Your task to perform on an android device: change the clock style Image 0: 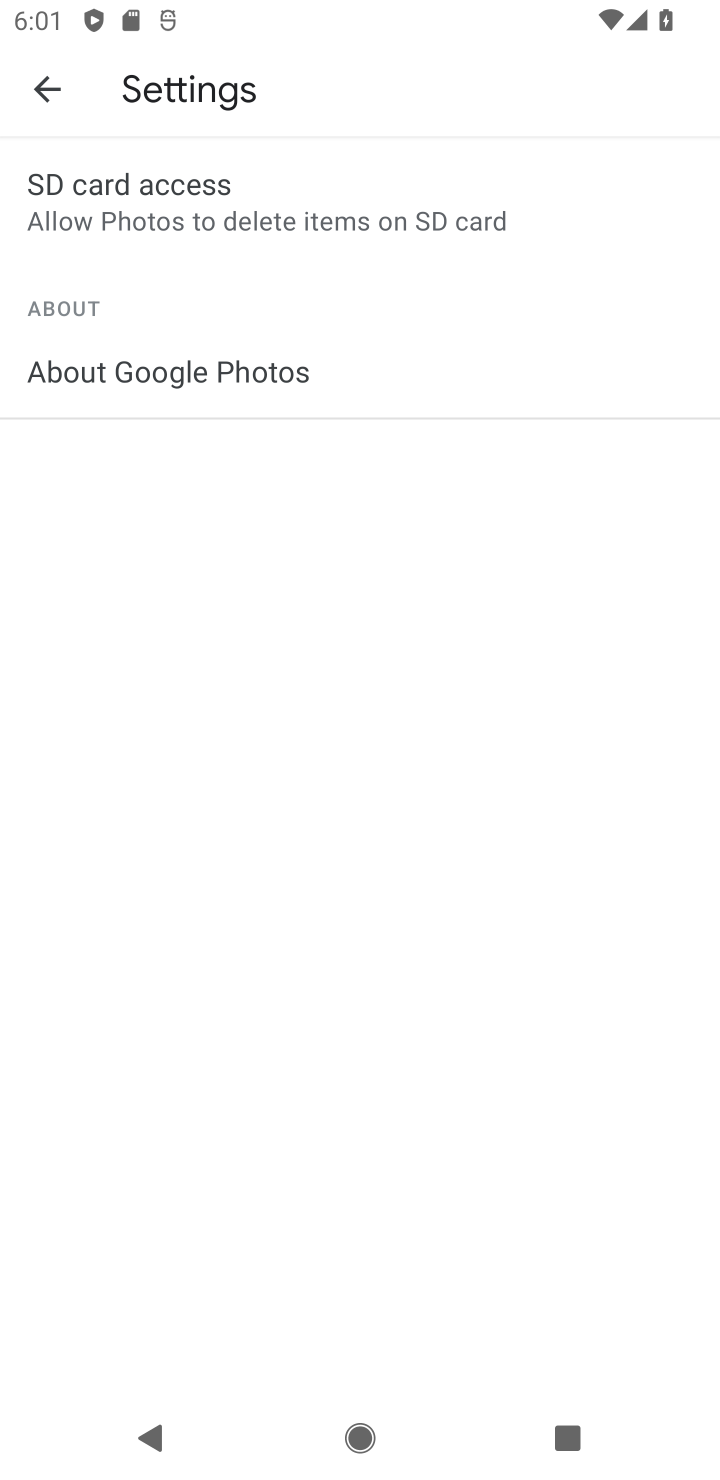
Step 0: press home button
Your task to perform on an android device: change the clock style Image 1: 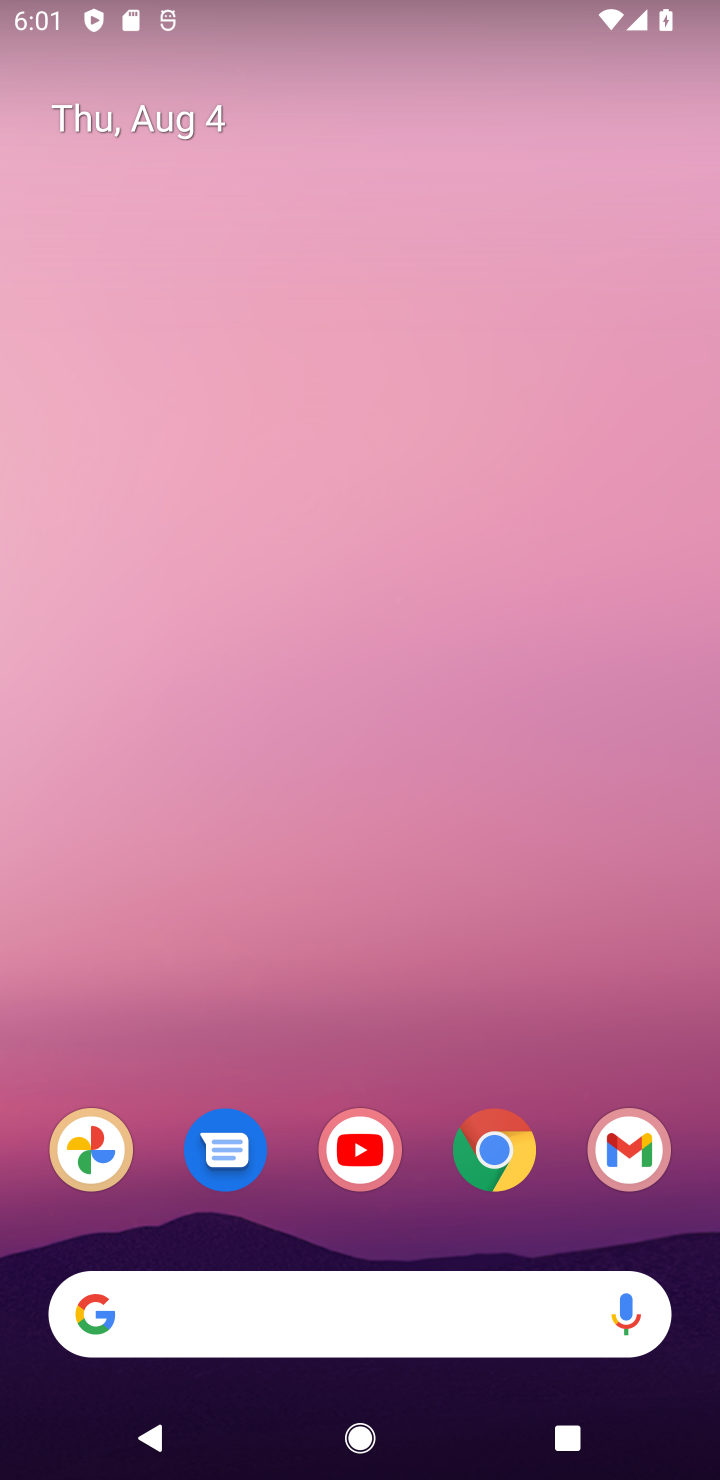
Step 1: drag from (453, 1163) to (393, 6)
Your task to perform on an android device: change the clock style Image 2: 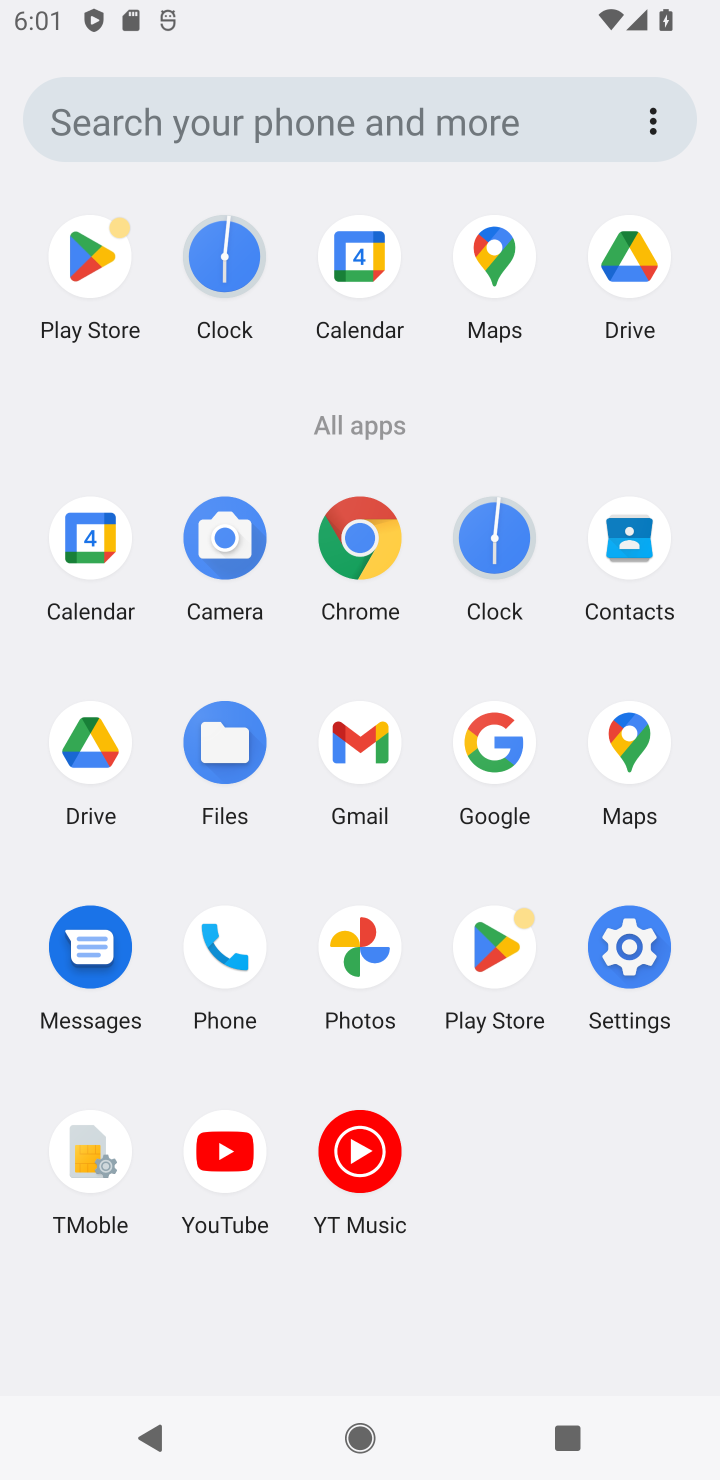
Step 2: click (503, 536)
Your task to perform on an android device: change the clock style Image 3: 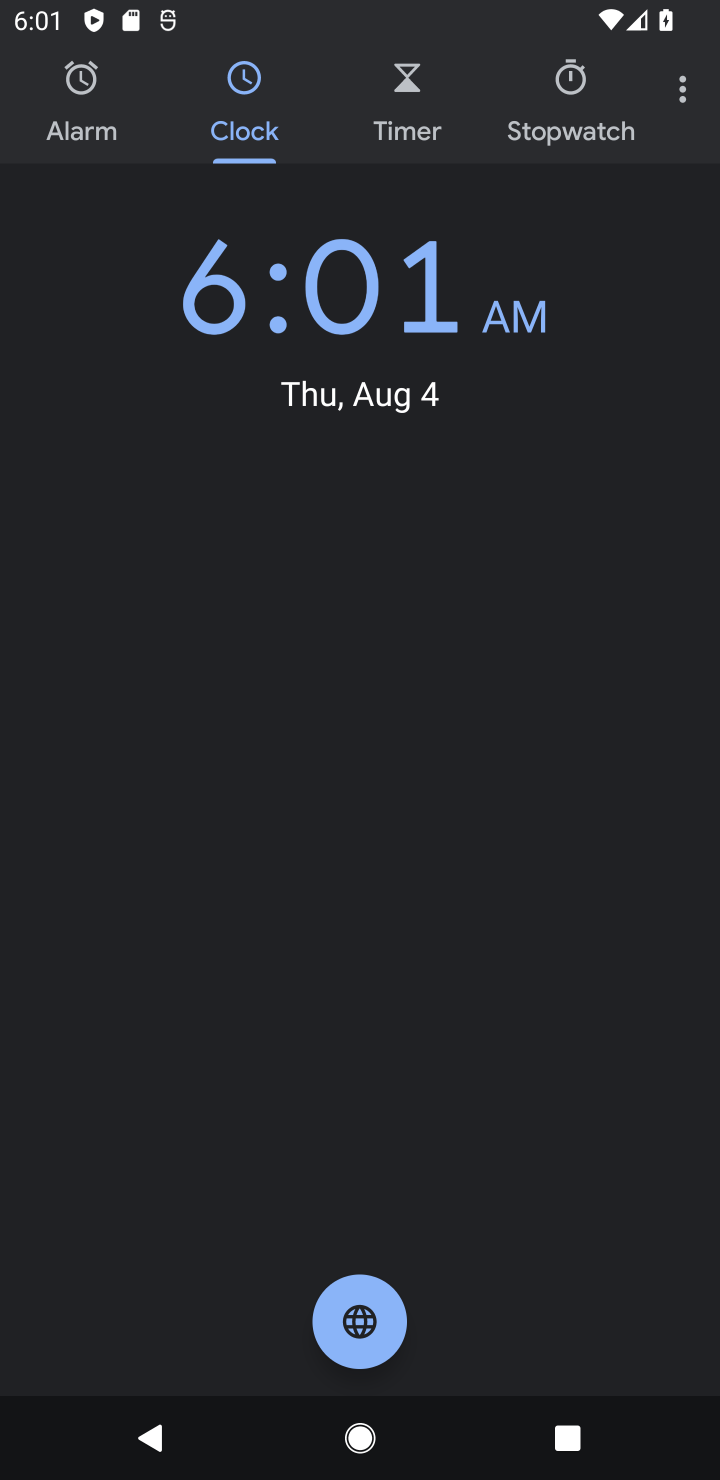
Step 3: click (661, 97)
Your task to perform on an android device: change the clock style Image 4: 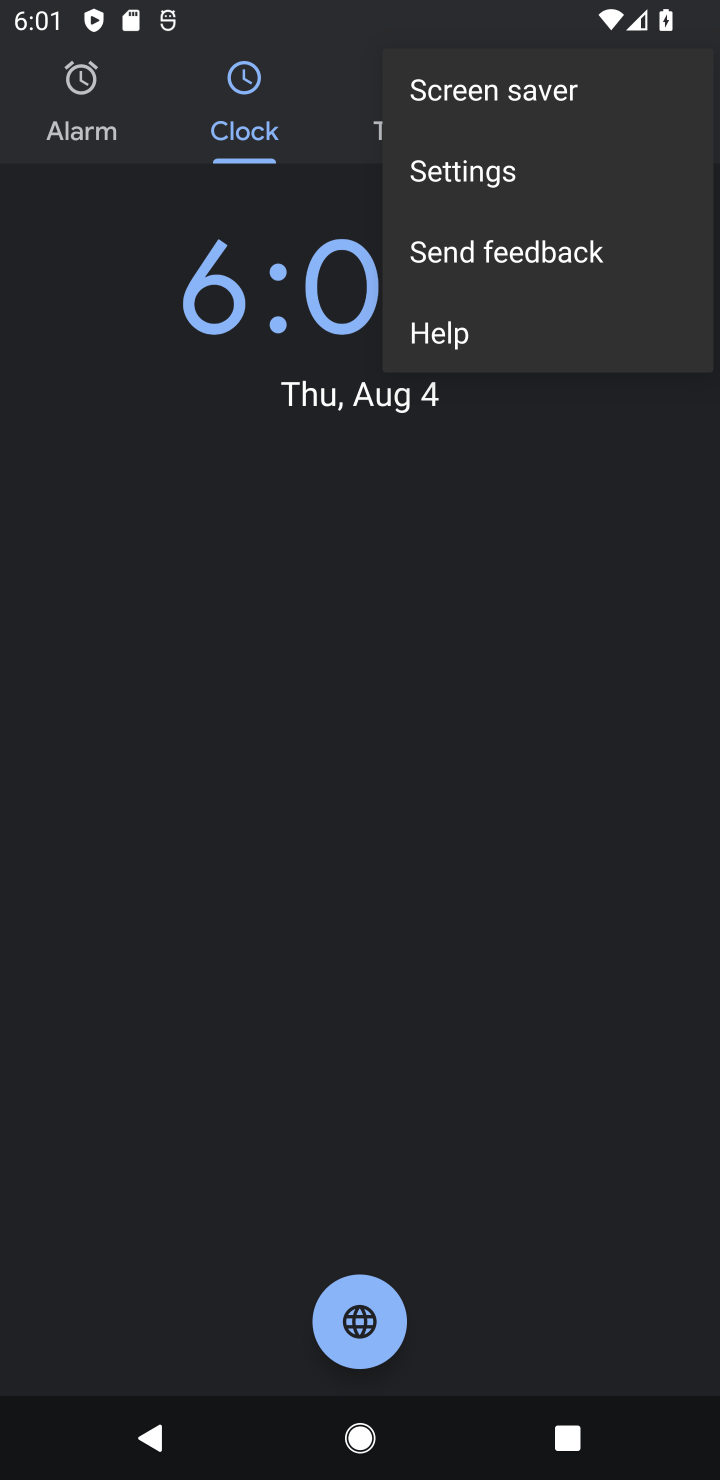
Step 4: click (500, 176)
Your task to perform on an android device: change the clock style Image 5: 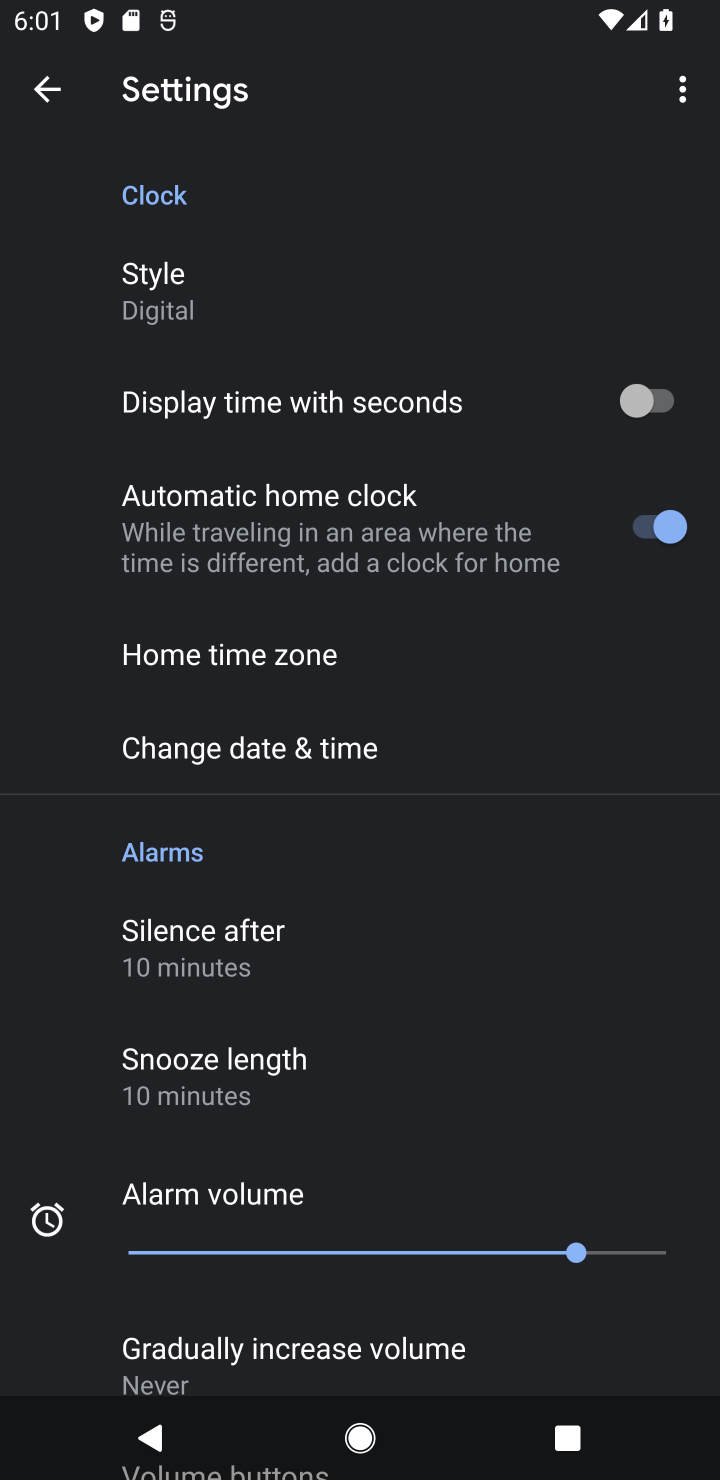
Step 5: click (301, 317)
Your task to perform on an android device: change the clock style Image 6: 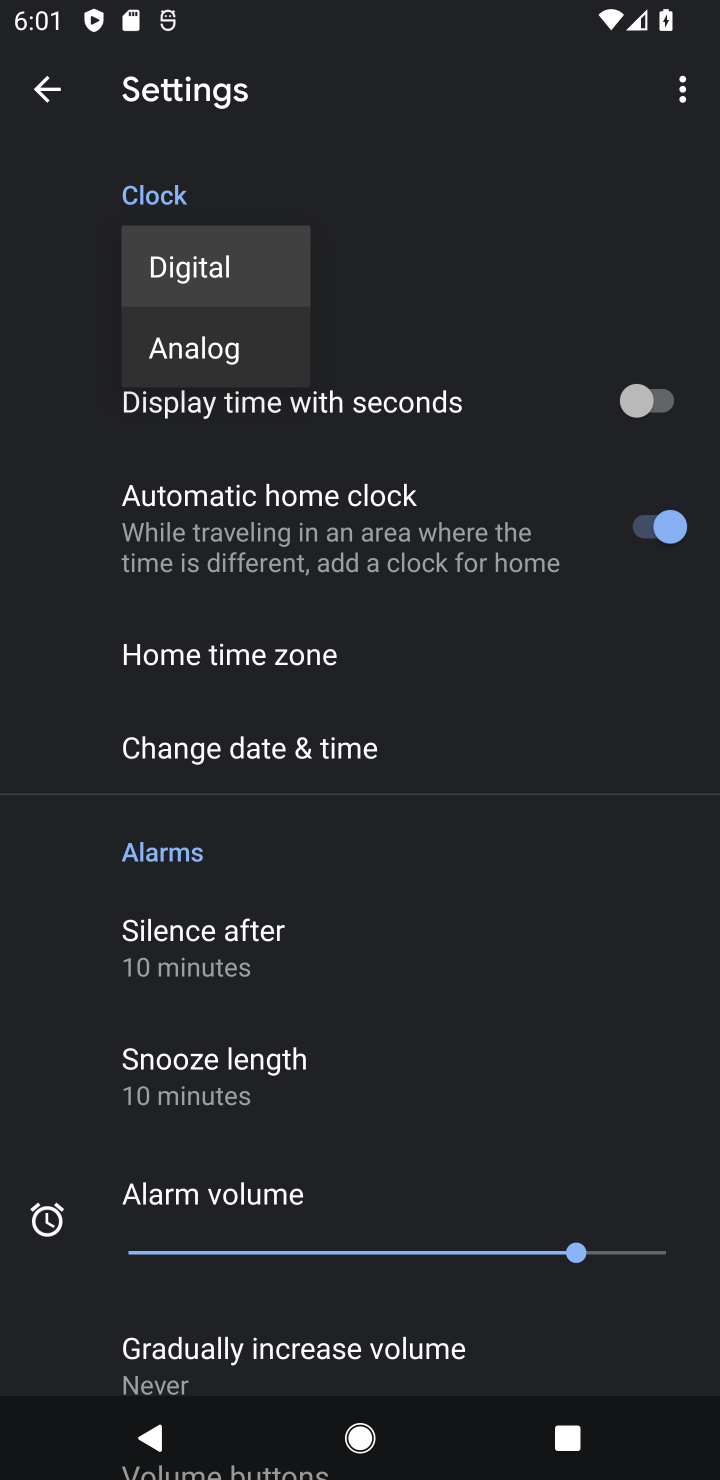
Step 6: click (233, 348)
Your task to perform on an android device: change the clock style Image 7: 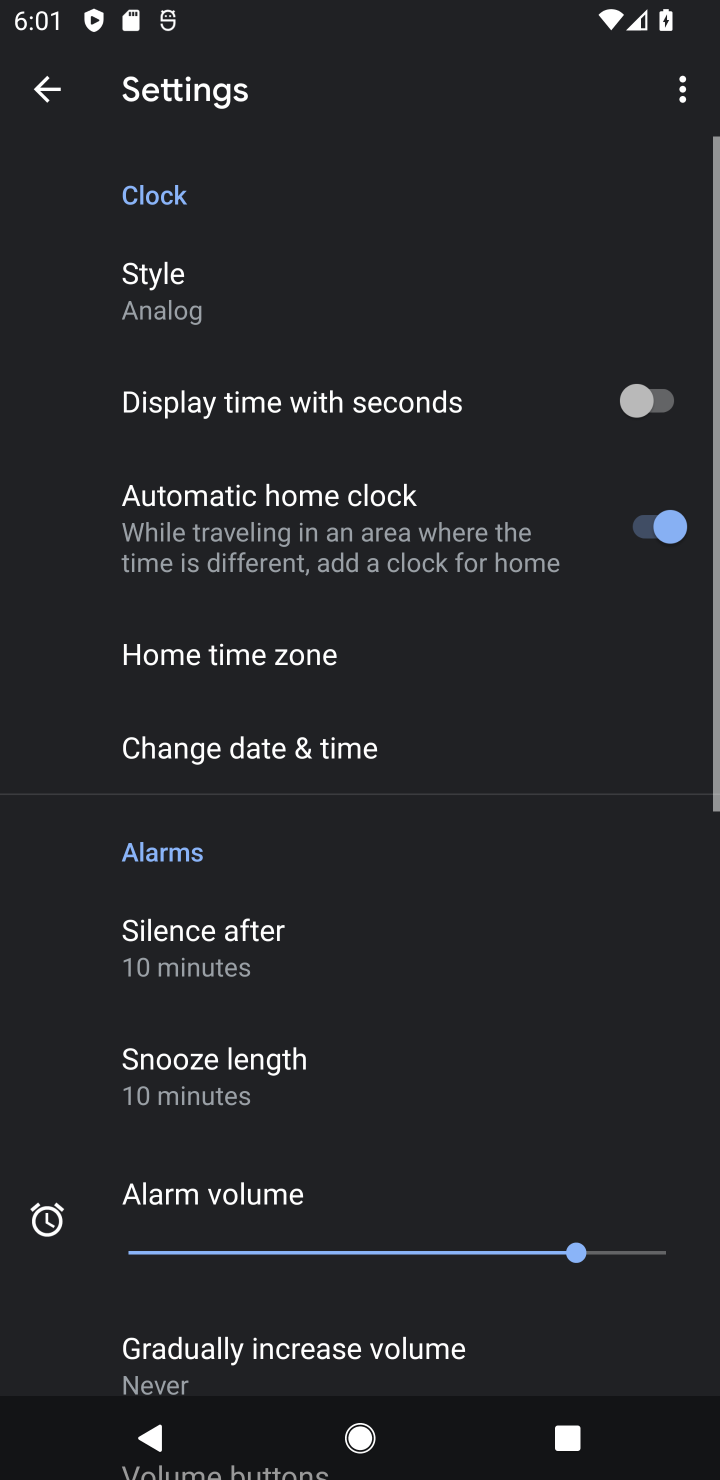
Step 7: task complete